Your task to perform on an android device: check android version Image 0: 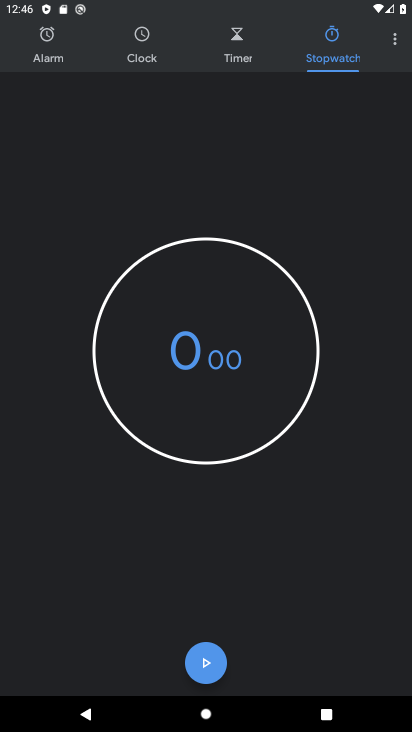
Step 0: press home button
Your task to perform on an android device: check android version Image 1: 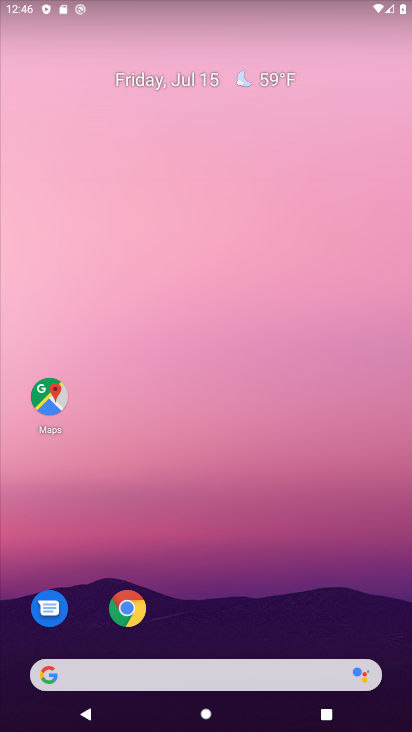
Step 1: drag from (215, 682) to (104, 7)
Your task to perform on an android device: check android version Image 2: 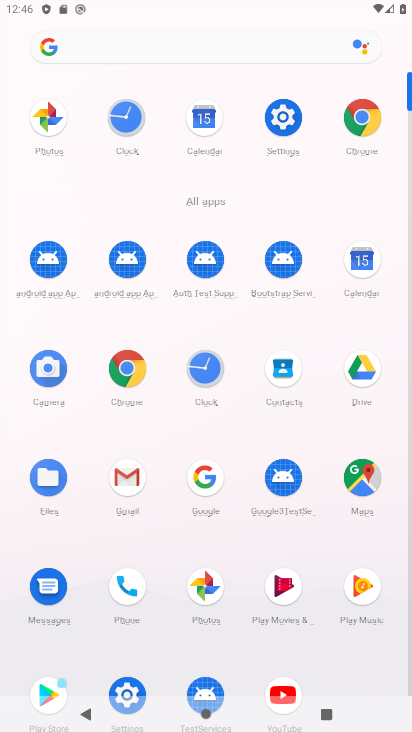
Step 2: click (284, 119)
Your task to perform on an android device: check android version Image 3: 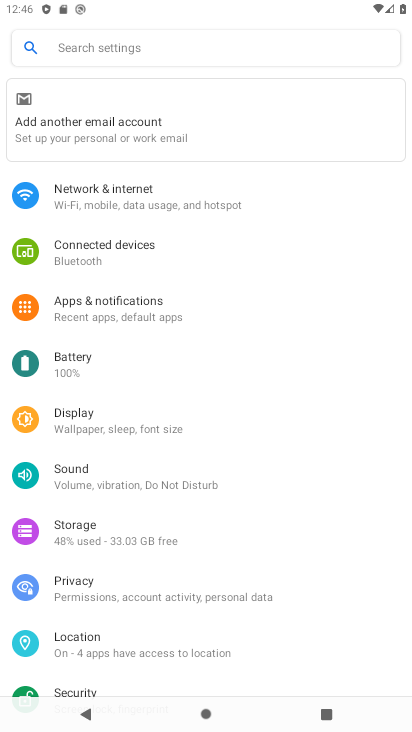
Step 3: drag from (198, 612) to (110, 41)
Your task to perform on an android device: check android version Image 4: 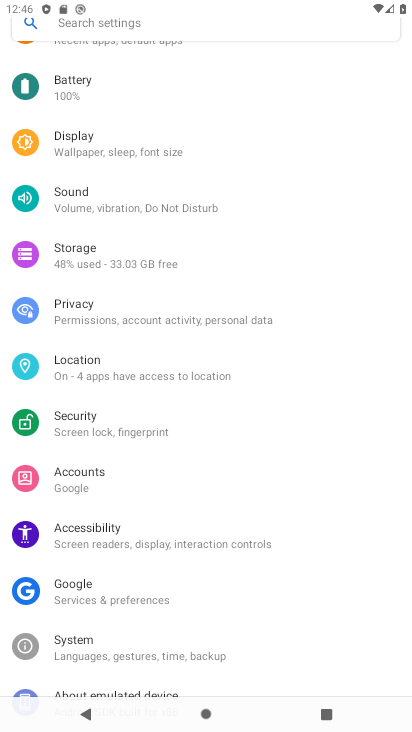
Step 4: drag from (145, 664) to (115, 204)
Your task to perform on an android device: check android version Image 5: 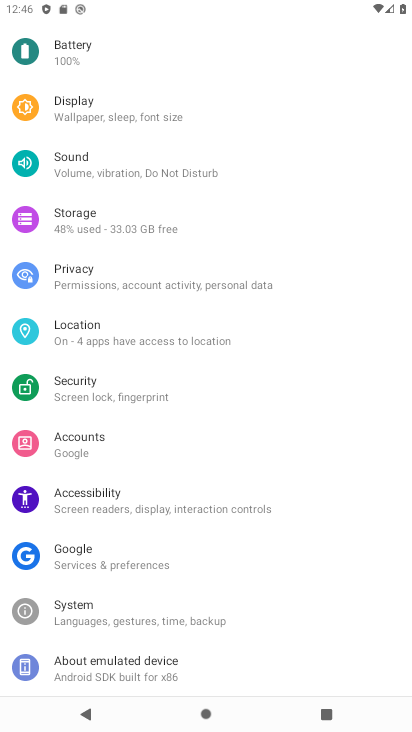
Step 5: click (105, 666)
Your task to perform on an android device: check android version Image 6: 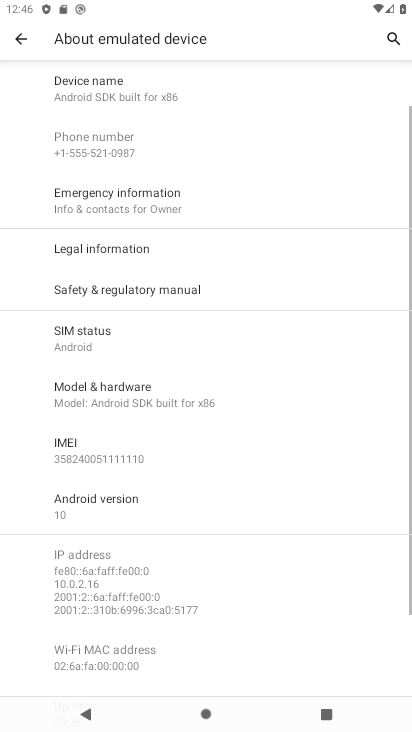
Step 6: click (151, 498)
Your task to perform on an android device: check android version Image 7: 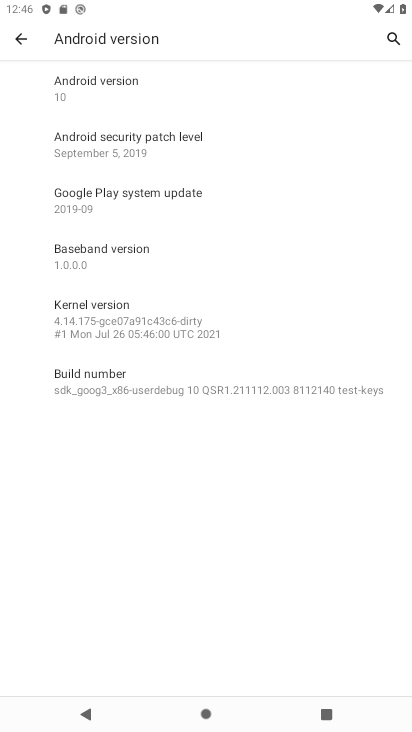
Step 7: task complete